Your task to perform on an android device: toggle notifications settings in the gmail app Image 0: 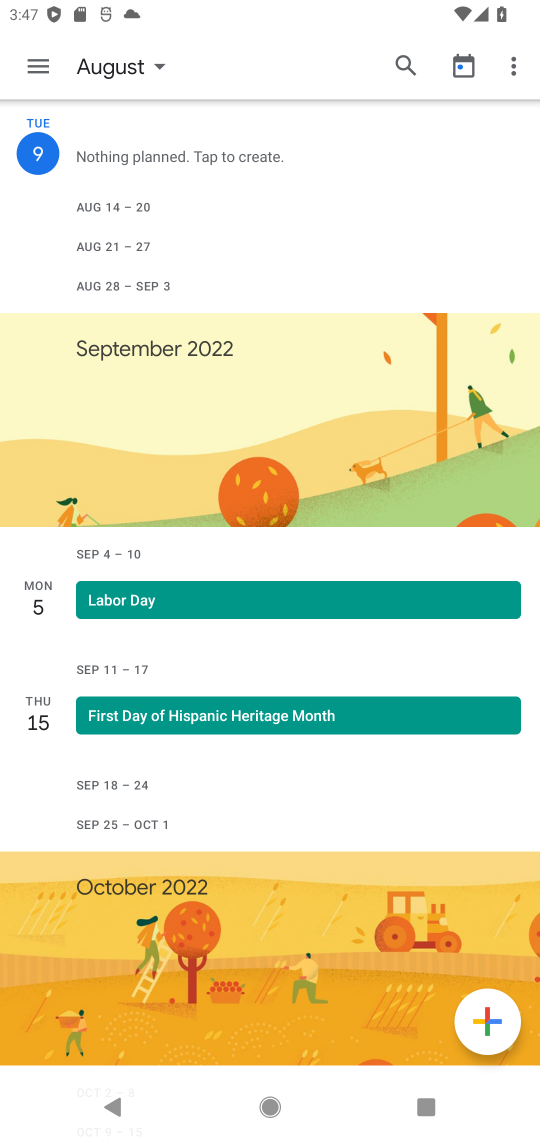
Step 0: press home button
Your task to perform on an android device: toggle notifications settings in the gmail app Image 1: 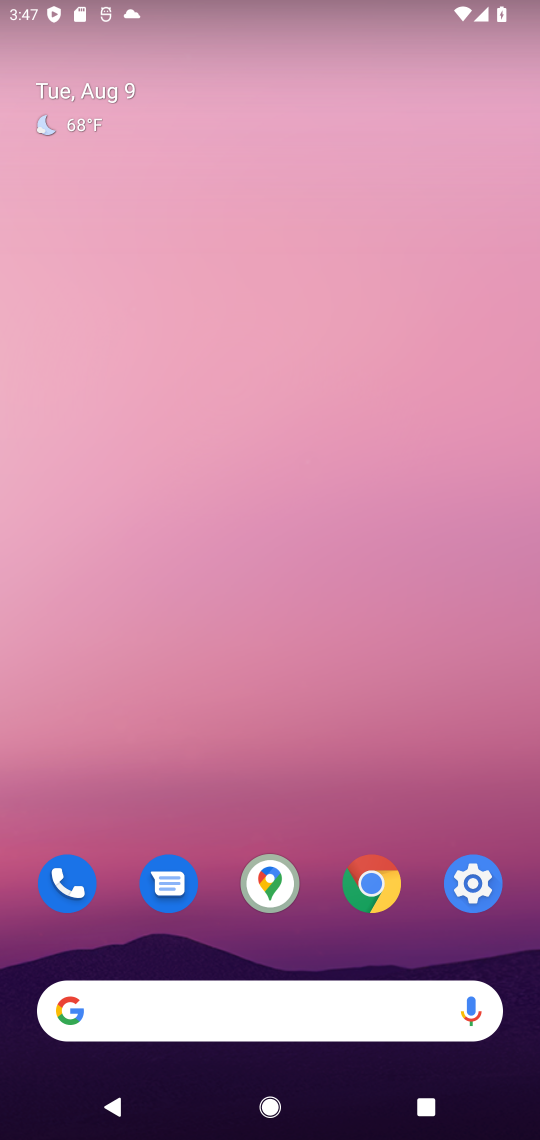
Step 1: drag from (372, 1018) to (185, 283)
Your task to perform on an android device: toggle notifications settings in the gmail app Image 2: 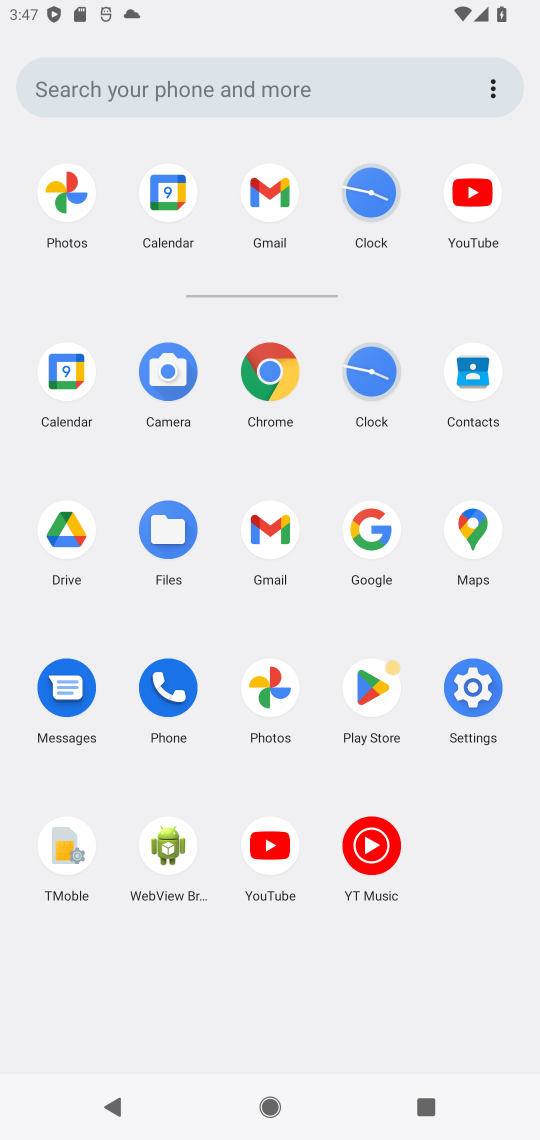
Step 2: drag from (263, 536) to (302, 682)
Your task to perform on an android device: toggle notifications settings in the gmail app Image 3: 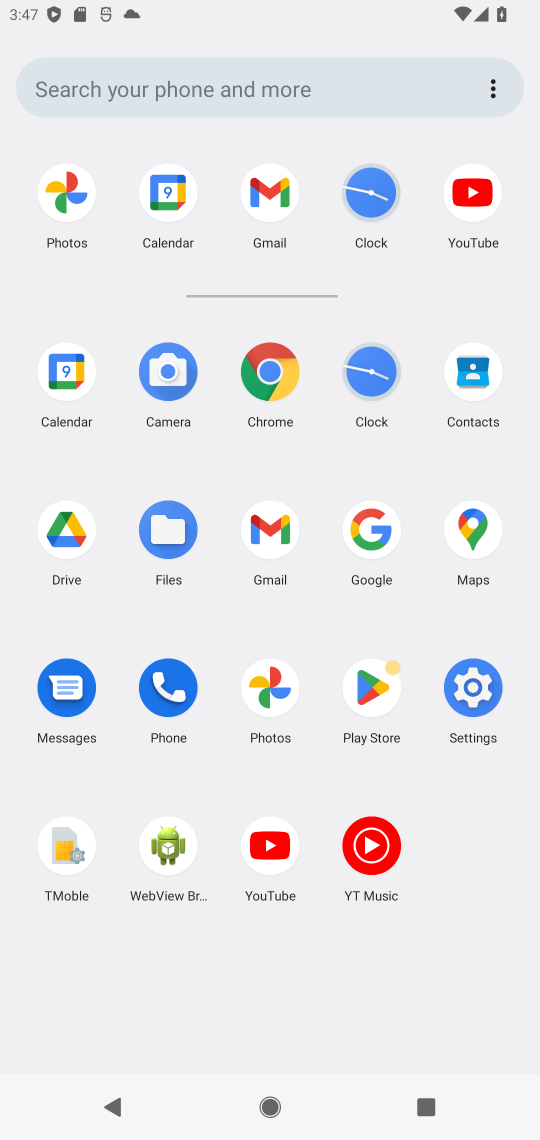
Step 3: drag from (255, 523) to (314, 923)
Your task to perform on an android device: toggle notifications settings in the gmail app Image 4: 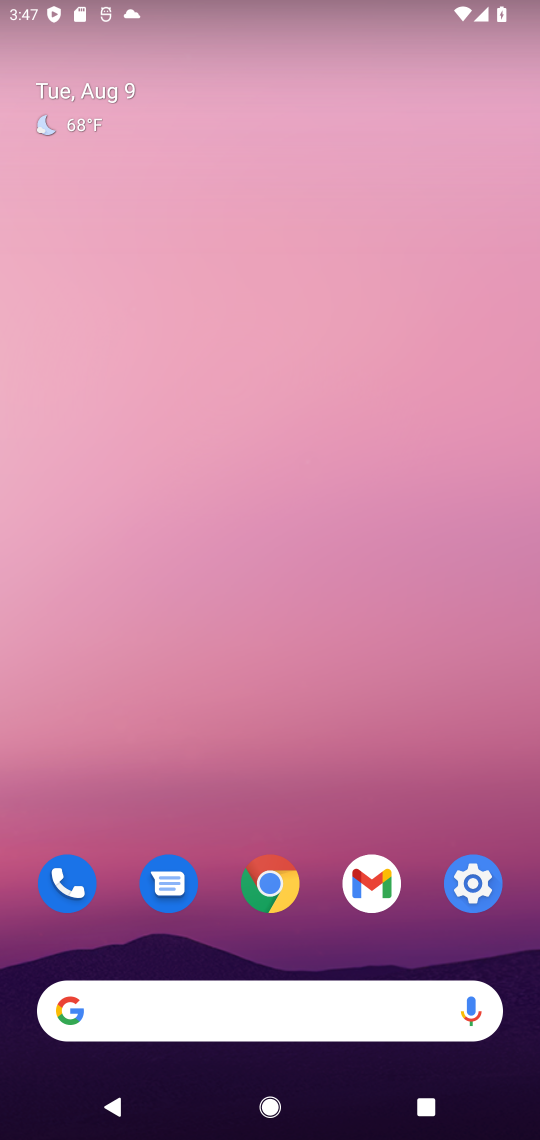
Step 4: click (363, 892)
Your task to perform on an android device: toggle notifications settings in the gmail app Image 5: 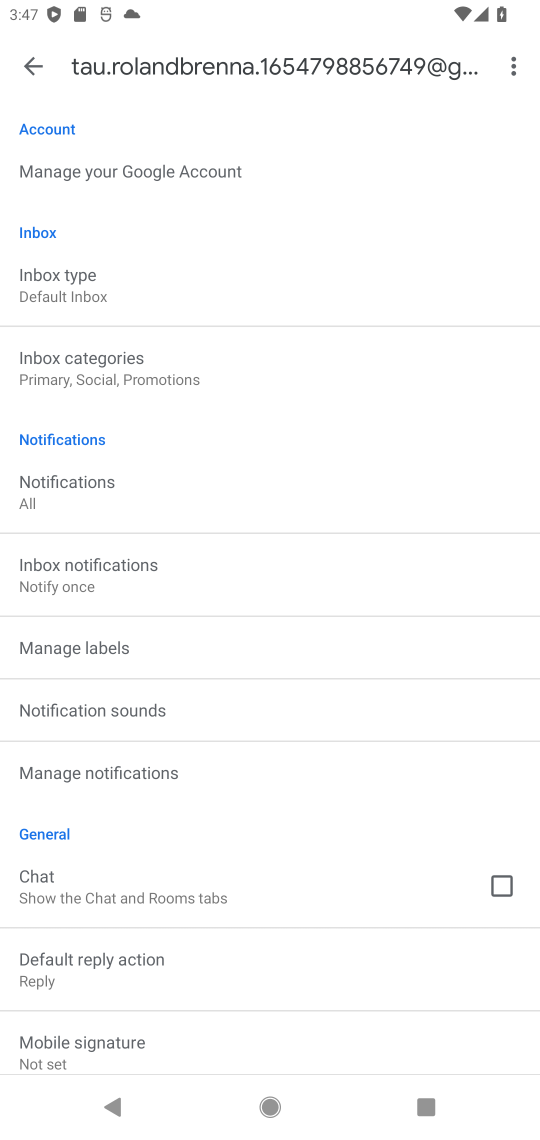
Step 5: click (92, 505)
Your task to perform on an android device: toggle notifications settings in the gmail app Image 6: 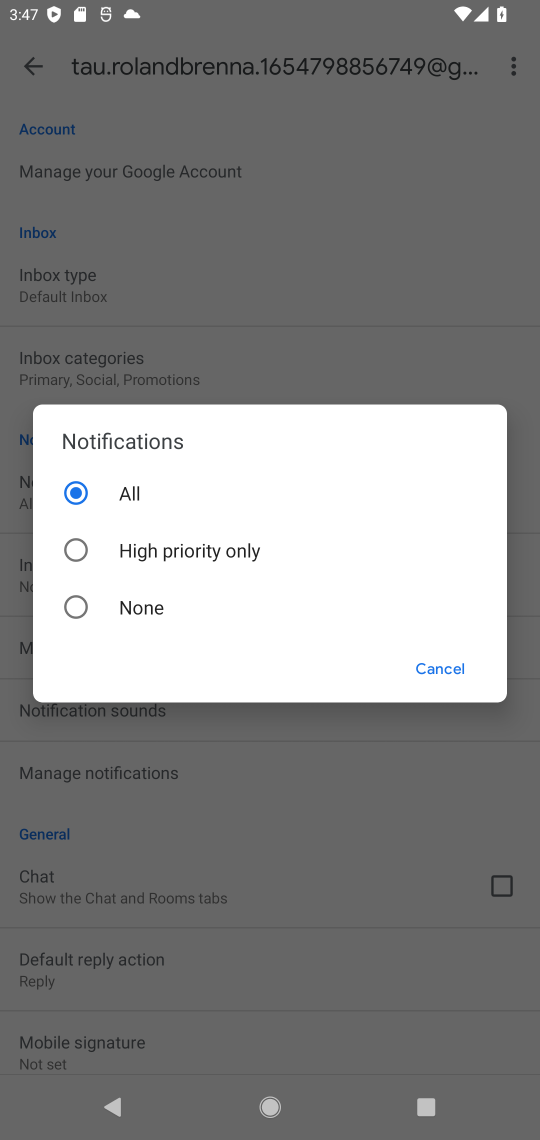
Step 6: task complete